Your task to perform on an android device: Search for seafood restaurants on Google Maps Image 0: 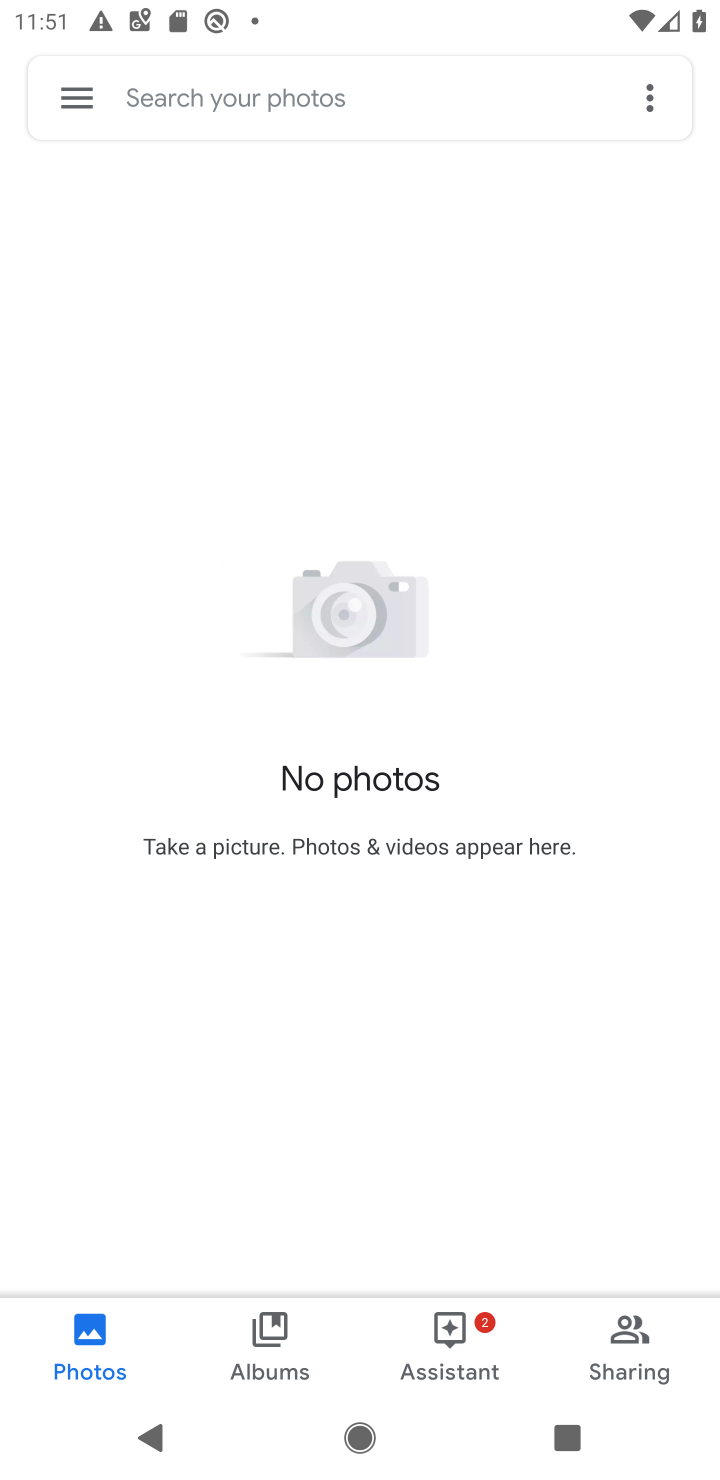
Step 0: press home button
Your task to perform on an android device: Search for seafood restaurants on Google Maps Image 1: 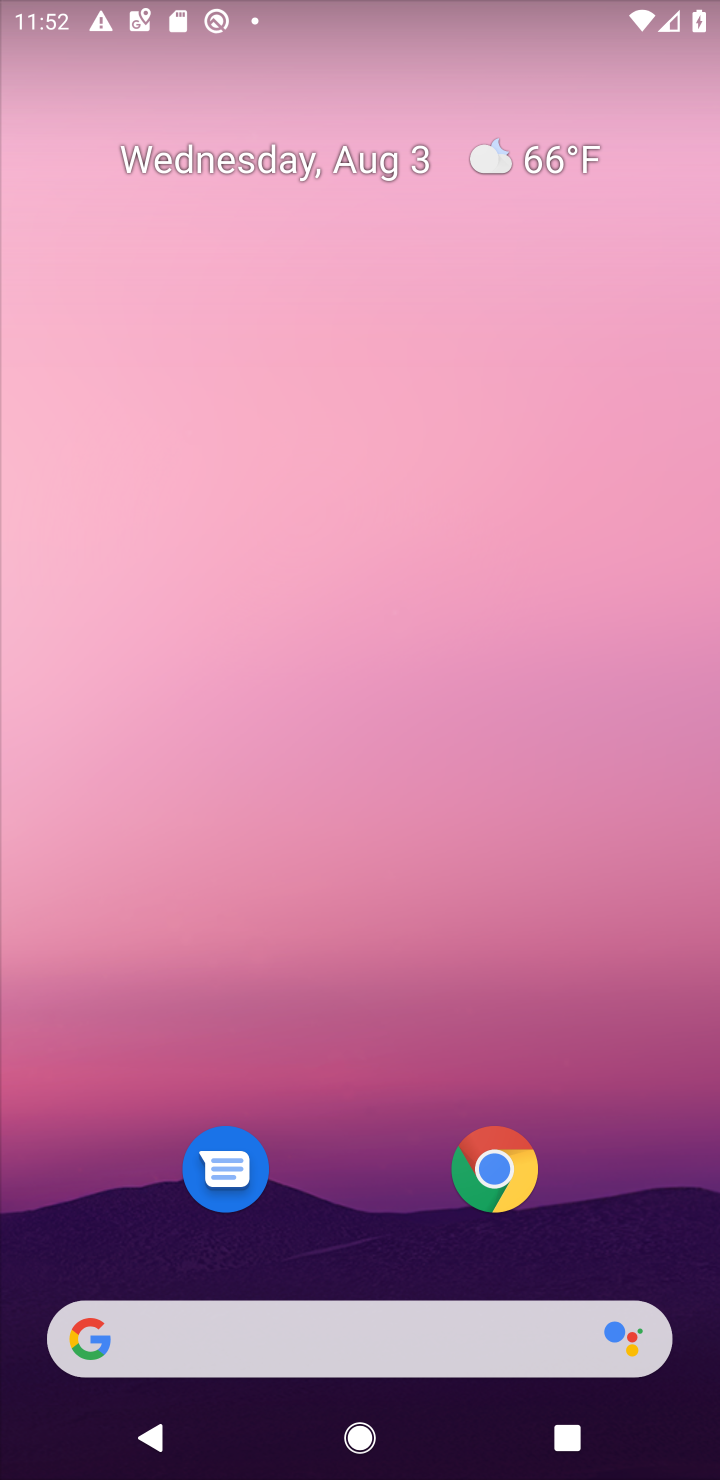
Step 1: drag from (363, 1193) to (385, 148)
Your task to perform on an android device: Search for seafood restaurants on Google Maps Image 2: 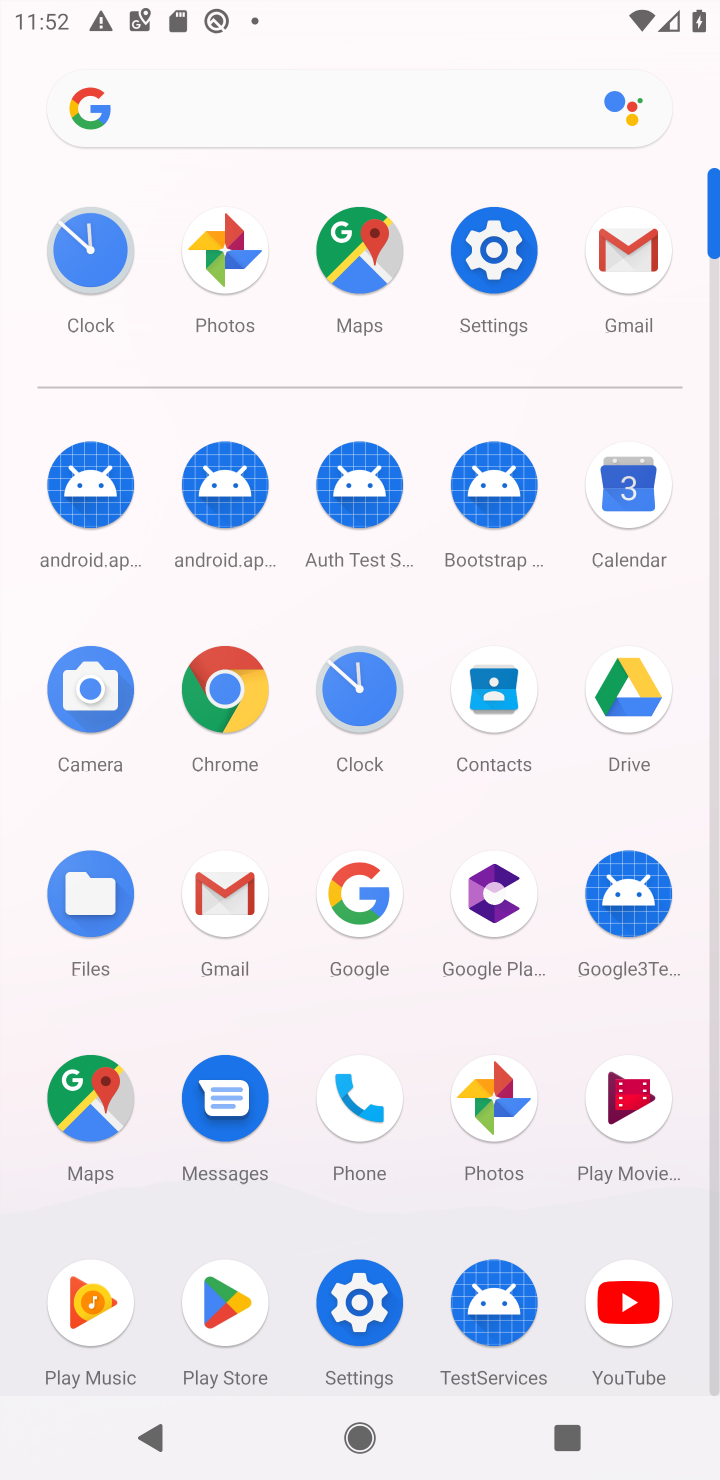
Step 2: click (361, 264)
Your task to perform on an android device: Search for seafood restaurants on Google Maps Image 3: 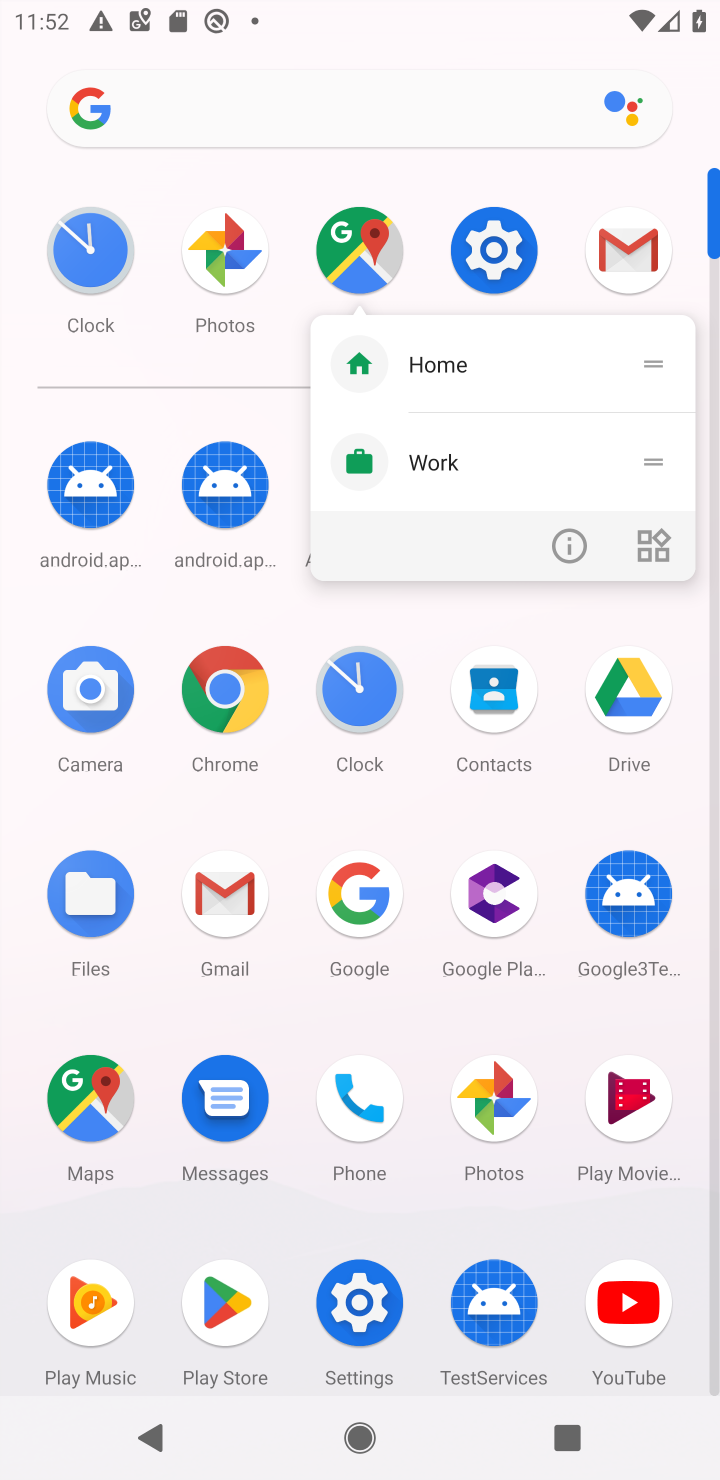
Step 3: click (360, 255)
Your task to perform on an android device: Search for seafood restaurants on Google Maps Image 4: 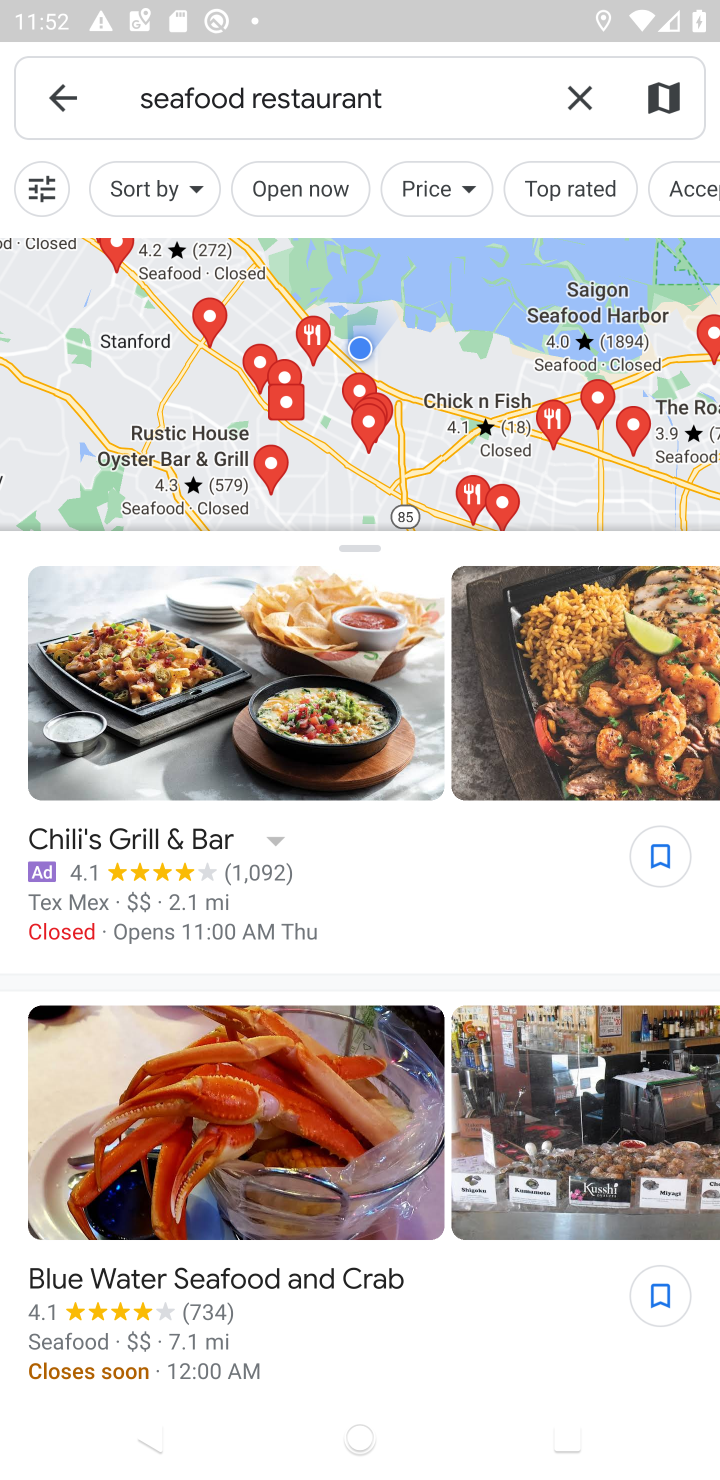
Step 4: task complete